Your task to perform on an android device: toggle improve location accuracy Image 0: 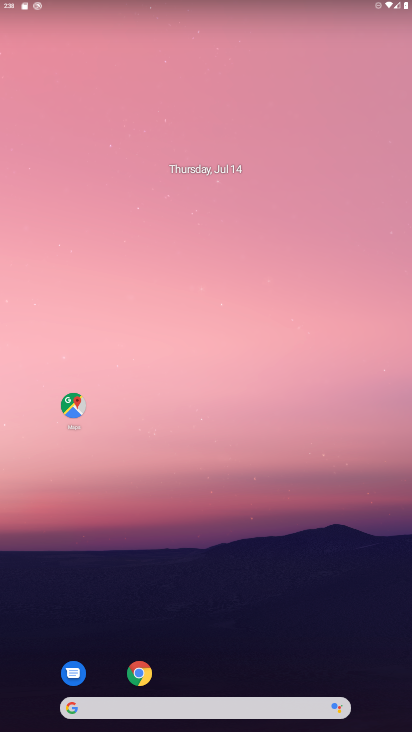
Step 0: drag from (187, 712) to (252, 151)
Your task to perform on an android device: toggle improve location accuracy Image 1: 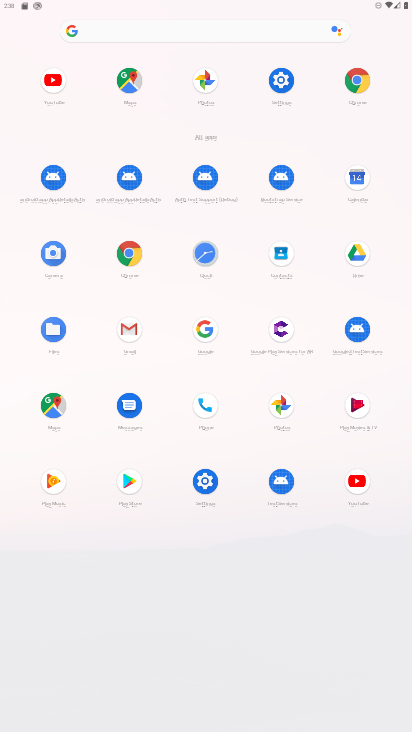
Step 1: click (197, 486)
Your task to perform on an android device: toggle improve location accuracy Image 2: 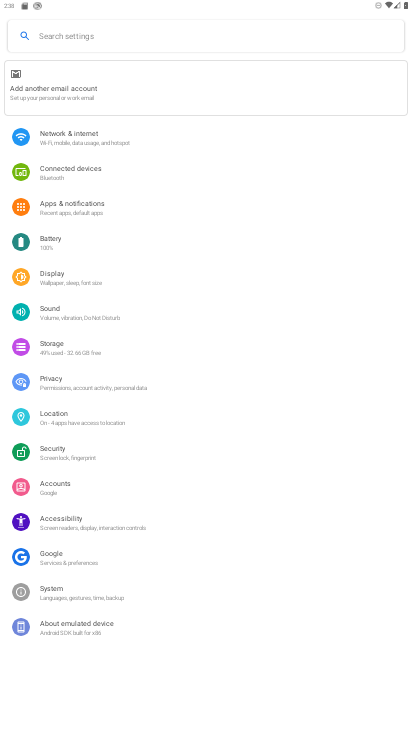
Step 2: click (84, 417)
Your task to perform on an android device: toggle improve location accuracy Image 3: 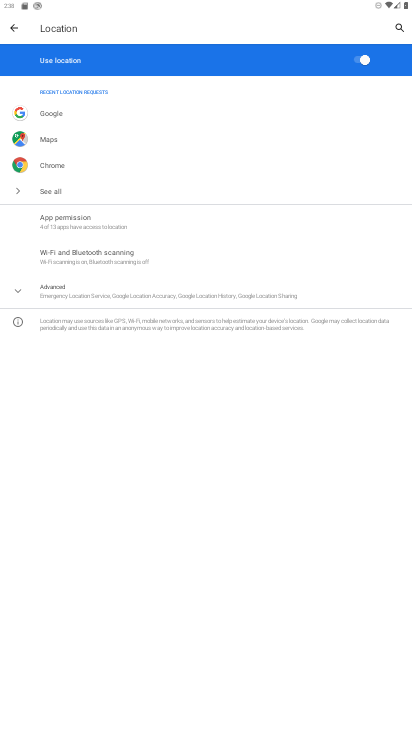
Step 3: click (102, 291)
Your task to perform on an android device: toggle improve location accuracy Image 4: 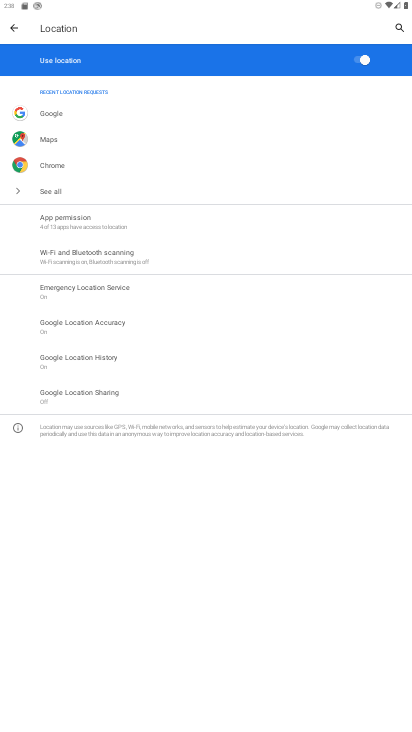
Step 4: click (114, 321)
Your task to perform on an android device: toggle improve location accuracy Image 5: 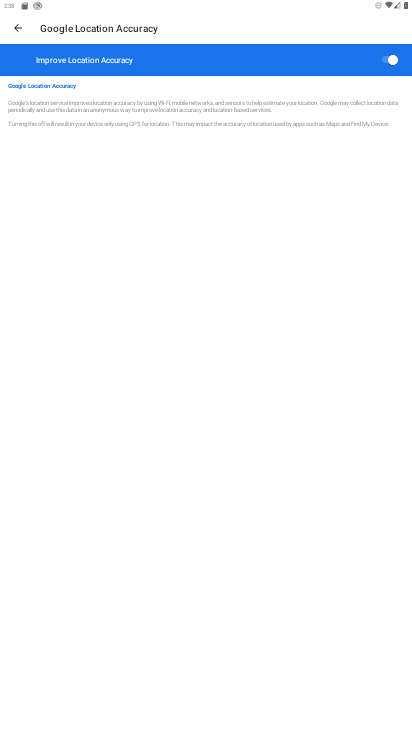
Step 5: click (381, 61)
Your task to perform on an android device: toggle improve location accuracy Image 6: 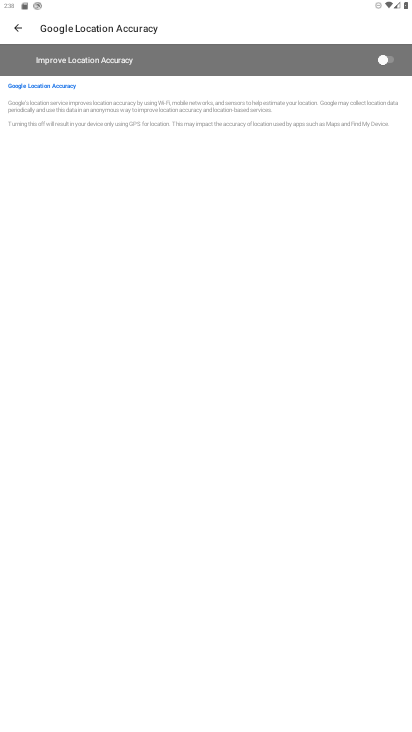
Step 6: task complete